Your task to perform on an android device: make emails show in primary in the gmail app Image 0: 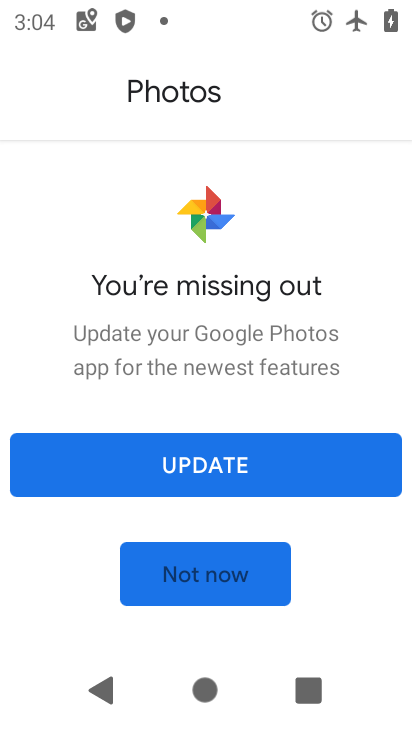
Step 0: press home button
Your task to perform on an android device: make emails show in primary in the gmail app Image 1: 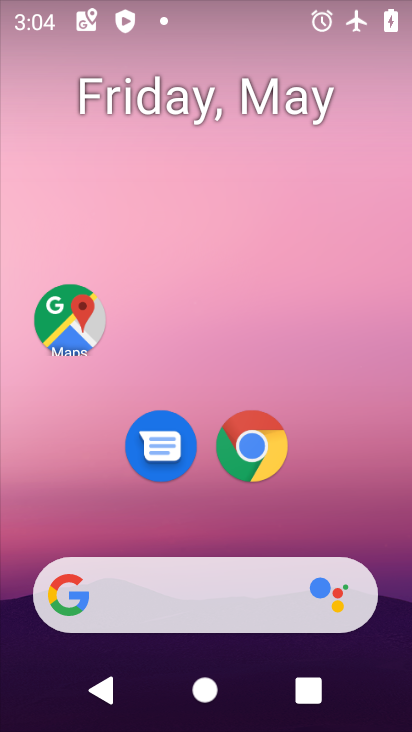
Step 1: drag from (391, 577) to (299, 112)
Your task to perform on an android device: make emails show in primary in the gmail app Image 2: 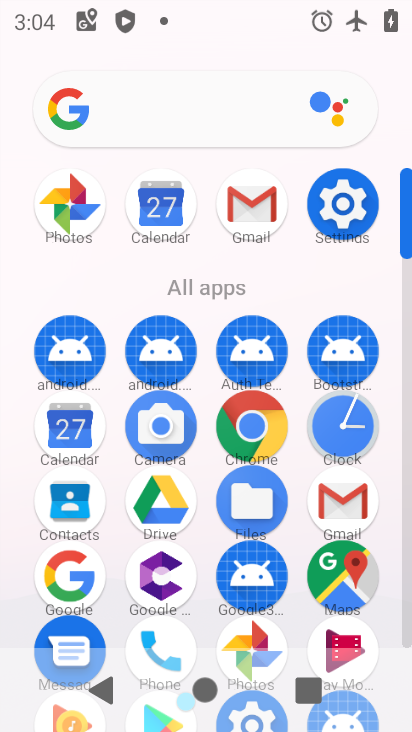
Step 2: click (259, 203)
Your task to perform on an android device: make emails show in primary in the gmail app Image 3: 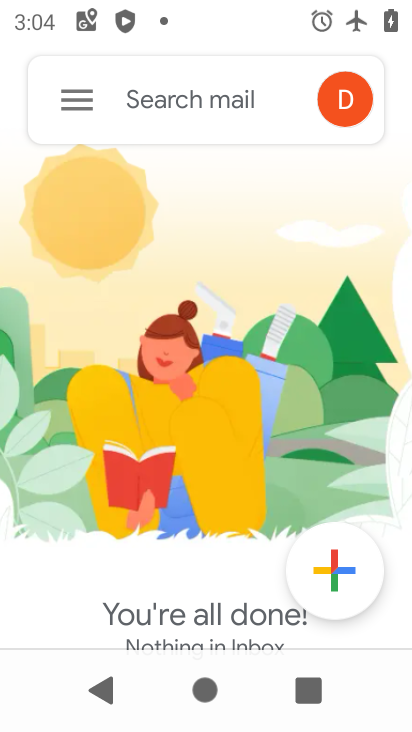
Step 3: click (71, 114)
Your task to perform on an android device: make emails show in primary in the gmail app Image 4: 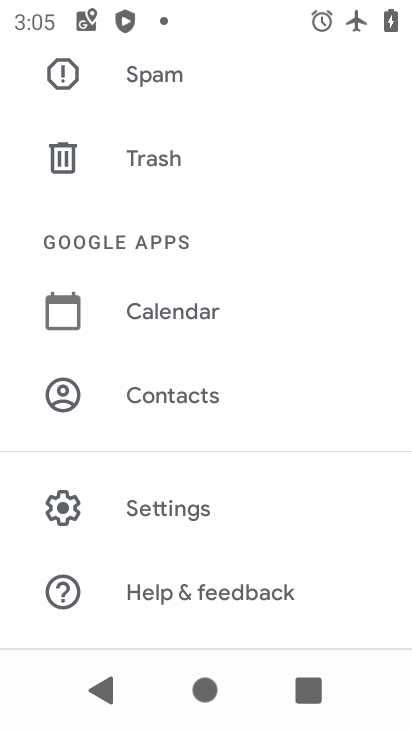
Step 4: click (233, 501)
Your task to perform on an android device: make emails show in primary in the gmail app Image 5: 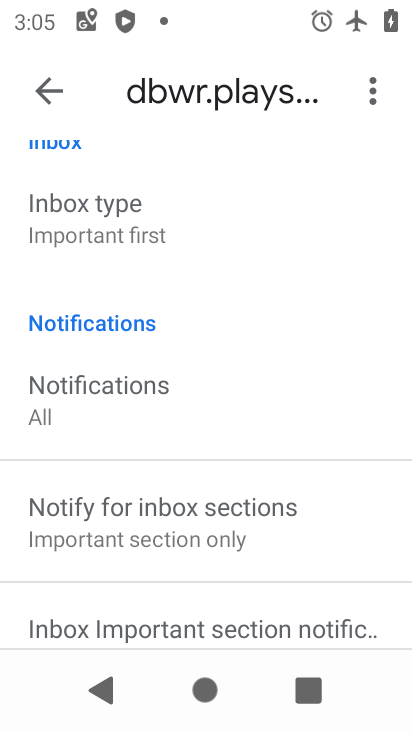
Step 5: click (172, 212)
Your task to perform on an android device: make emails show in primary in the gmail app Image 6: 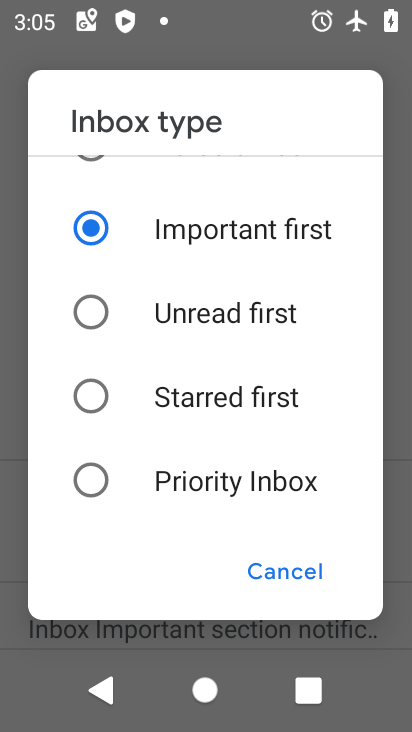
Step 6: drag from (213, 266) to (241, 579)
Your task to perform on an android device: make emails show in primary in the gmail app Image 7: 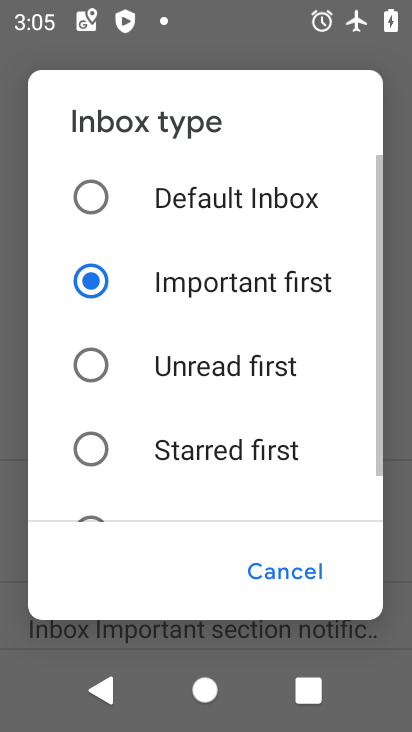
Step 7: click (229, 207)
Your task to perform on an android device: make emails show in primary in the gmail app Image 8: 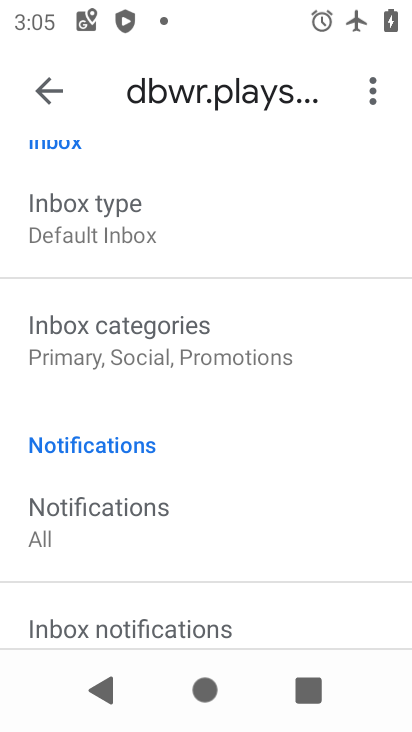
Step 8: task complete